Your task to perform on an android device: Go to notification settings Image 0: 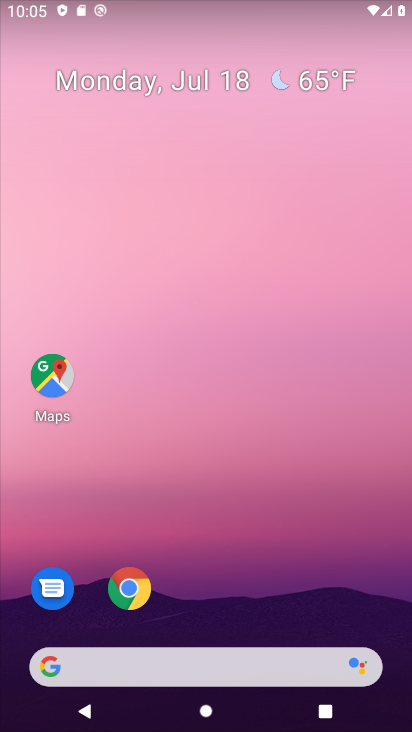
Step 0: press home button
Your task to perform on an android device: Go to notification settings Image 1: 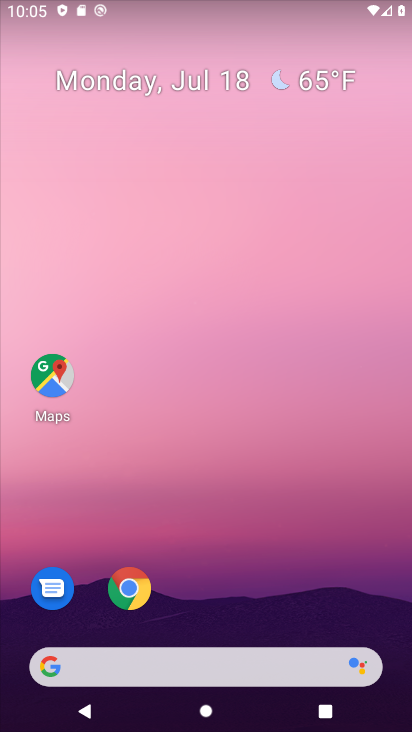
Step 1: drag from (289, 624) to (287, 82)
Your task to perform on an android device: Go to notification settings Image 2: 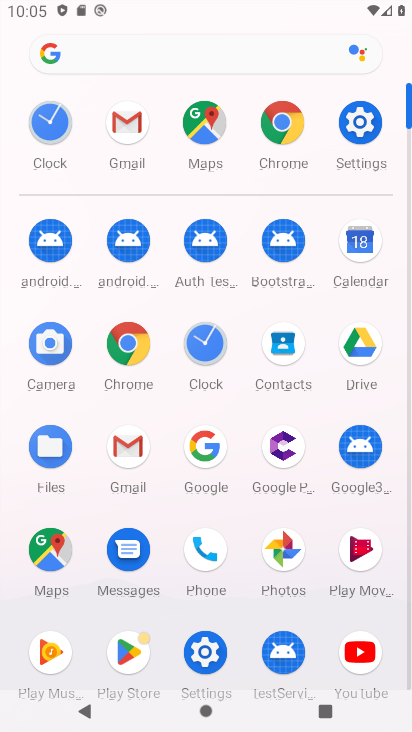
Step 2: click (362, 126)
Your task to perform on an android device: Go to notification settings Image 3: 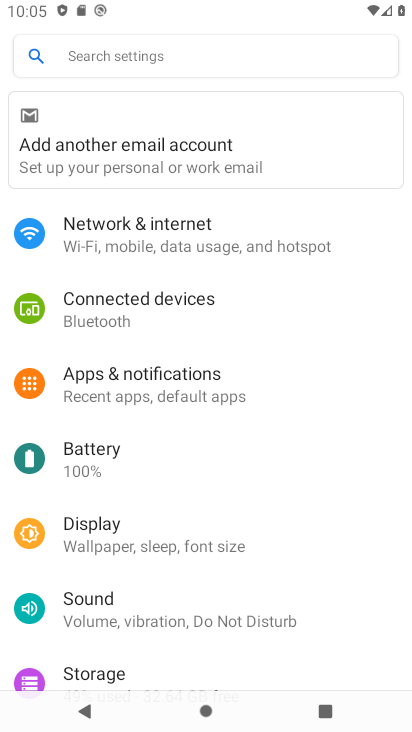
Step 3: click (146, 369)
Your task to perform on an android device: Go to notification settings Image 4: 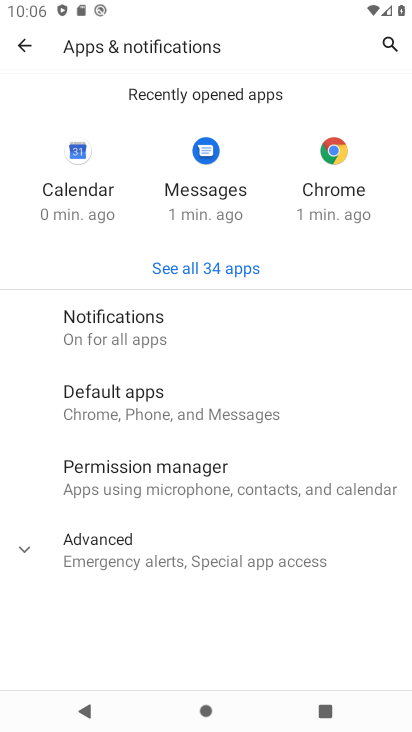
Step 4: click (80, 333)
Your task to perform on an android device: Go to notification settings Image 5: 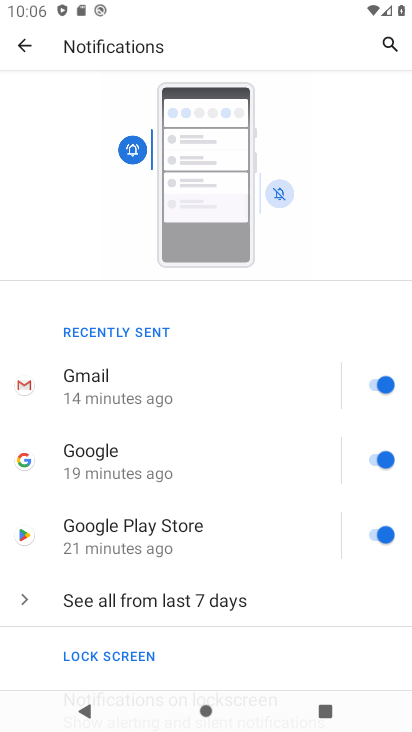
Step 5: task complete